Your task to perform on an android device: toggle javascript in the chrome app Image 0: 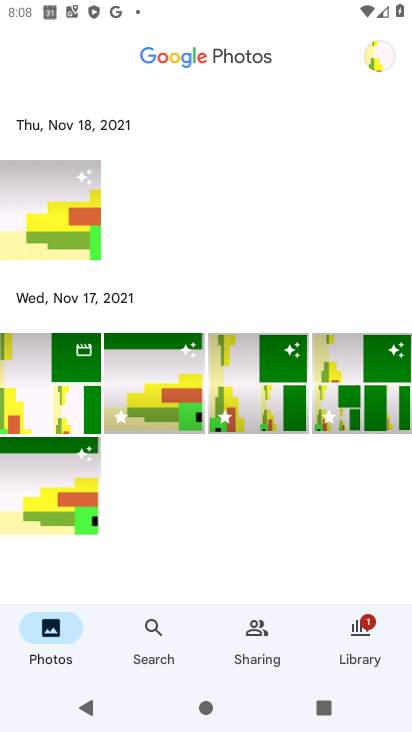
Step 0: press home button
Your task to perform on an android device: toggle javascript in the chrome app Image 1: 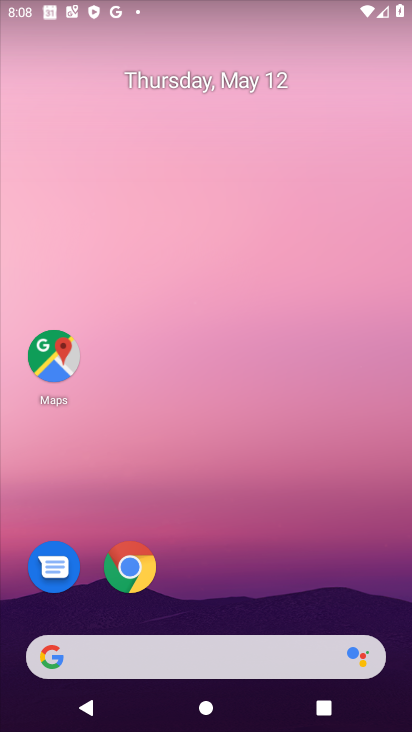
Step 1: drag from (233, 625) to (410, 59)
Your task to perform on an android device: toggle javascript in the chrome app Image 2: 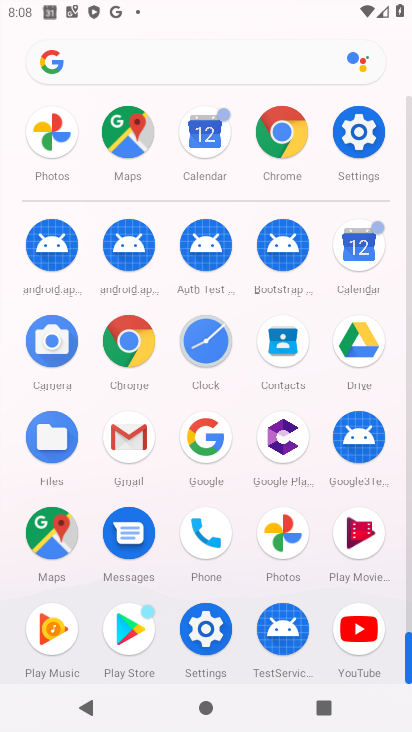
Step 2: click (286, 168)
Your task to perform on an android device: toggle javascript in the chrome app Image 3: 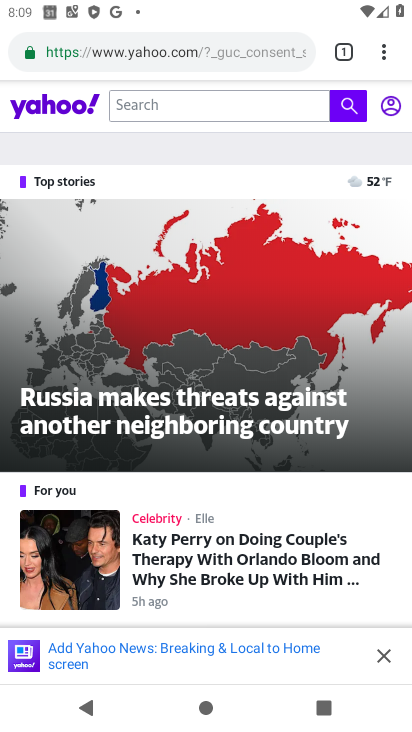
Step 3: click (386, 52)
Your task to perform on an android device: toggle javascript in the chrome app Image 4: 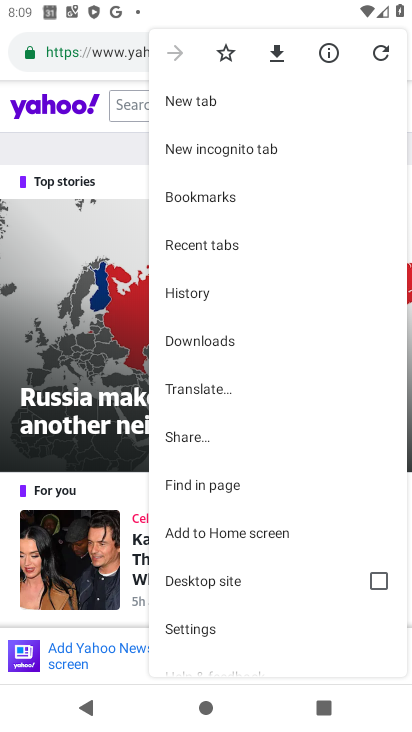
Step 4: drag from (291, 405) to (295, 128)
Your task to perform on an android device: toggle javascript in the chrome app Image 5: 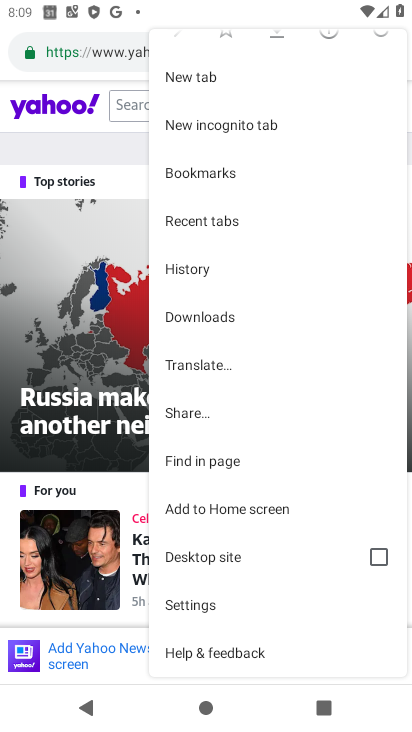
Step 5: click (215, 607)
Your task to perform on an android device: toggle javascript in the chrome app Image 6: 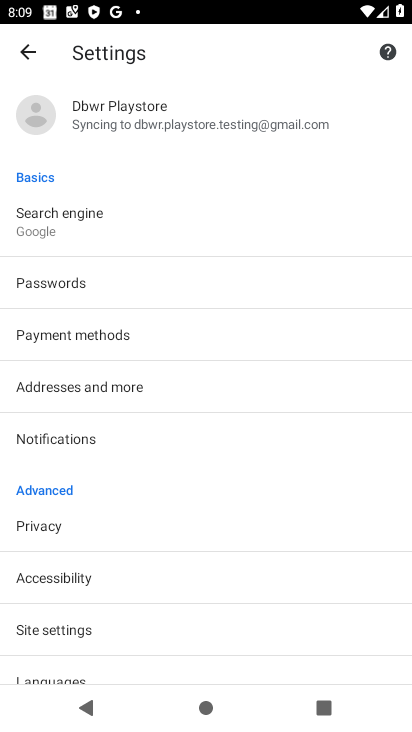
Step 6: drag from (182, 572) to (201, 177)
Your task to perform on an android device: toggle javascript in the chrome app Image 7: 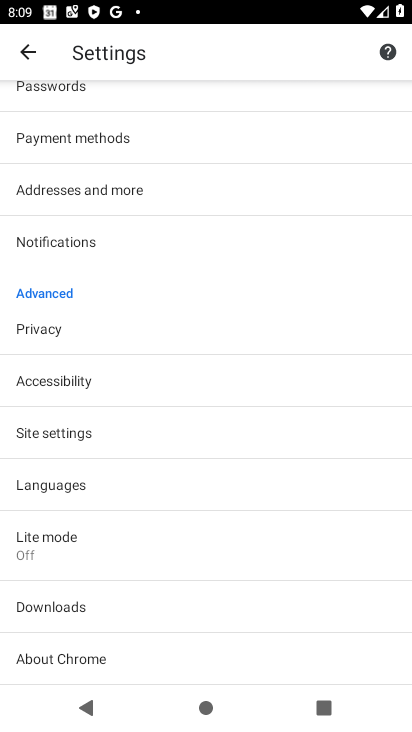
Step 7: click (109, 436)
Your task to perform on an android device: toggle javascript in the chrome app Image 8: 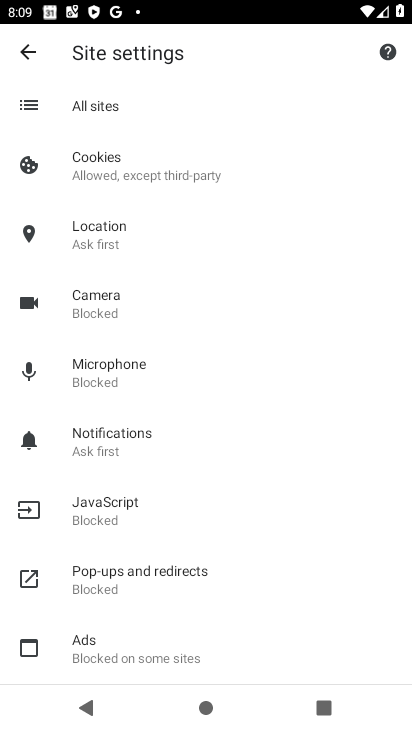
Step 8: click (124, 514)
Your task to perform on an android device: toggle javascript in the chrome app Image 9: 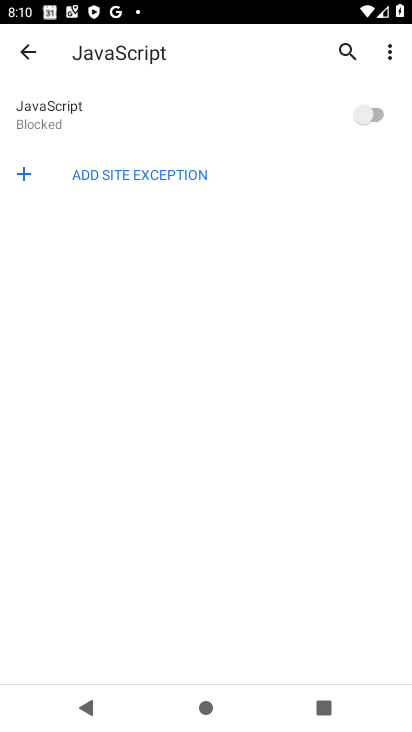
Step 9: click (382, 118)
Your task to perform on an android device: toggle javascript in the chrome app Image 10: 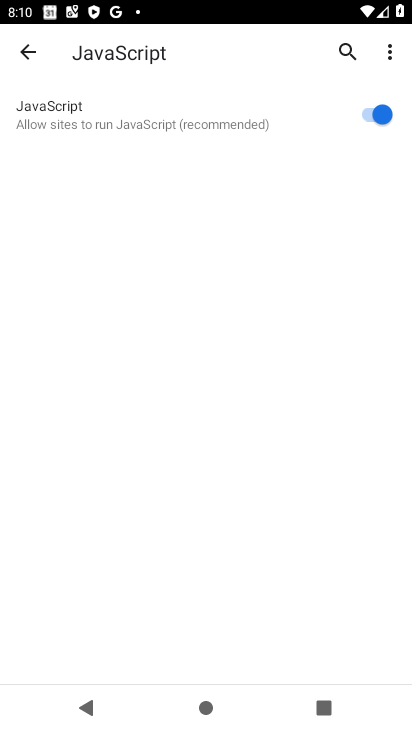
Step 10: task complete